Your task to perform on an android device: Go to wifi settings Image 0: 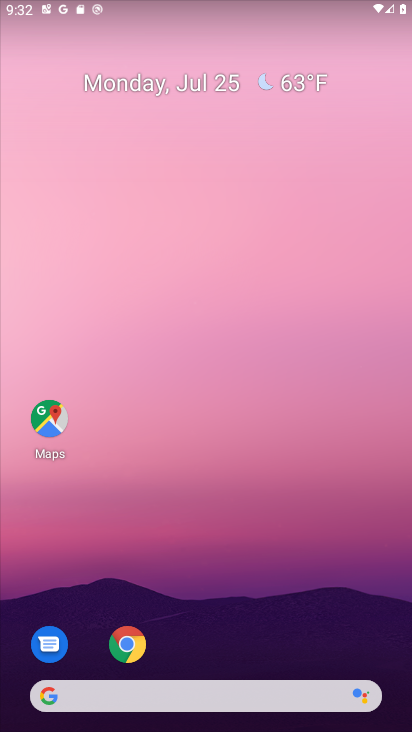
Step 0: drag from (276, 663) to (182, 7)
Your task to perform on an android device: Go to wifi settings Image 1: 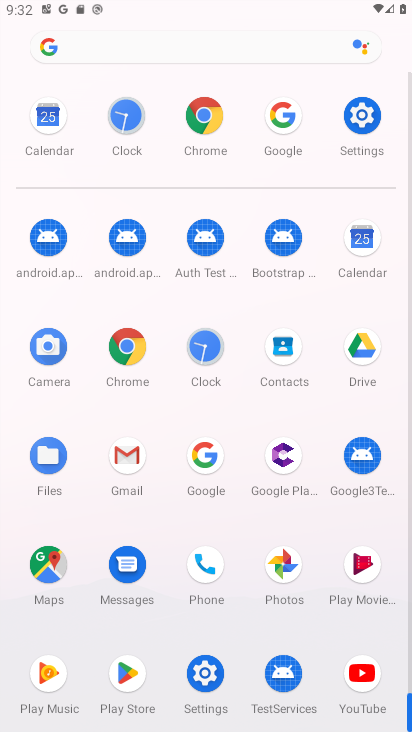
Step 1: click (364, 101)
Your task to perform on an android device: Go to wifi settings Image 2: 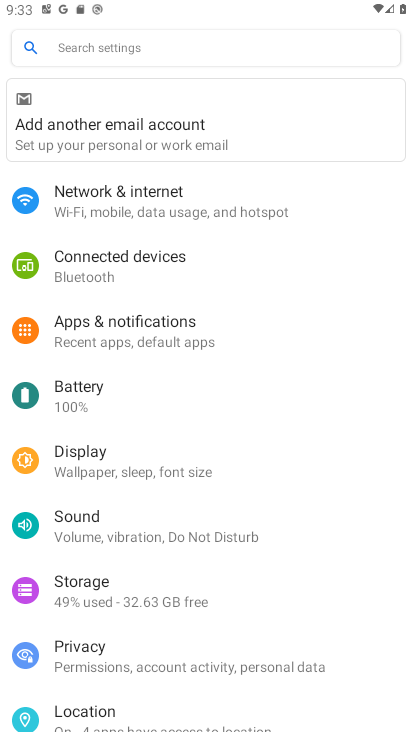
Step 2: click (129, 200)
Your task to perform on an android device: Go to wifi settings Image 3: 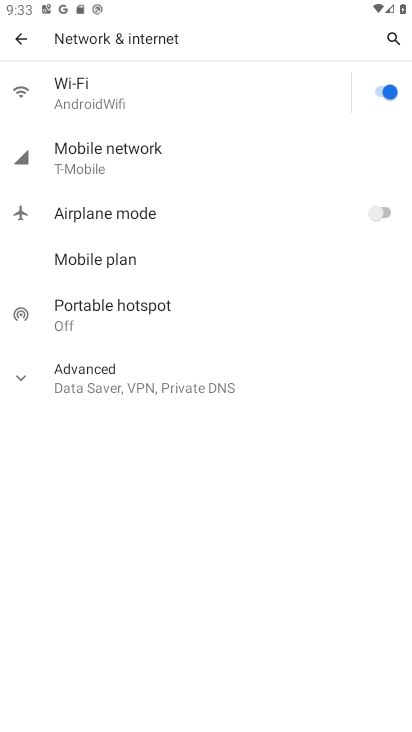
Step 3: task complete